Your task to perform on an android device: Go to location settings Image 0: 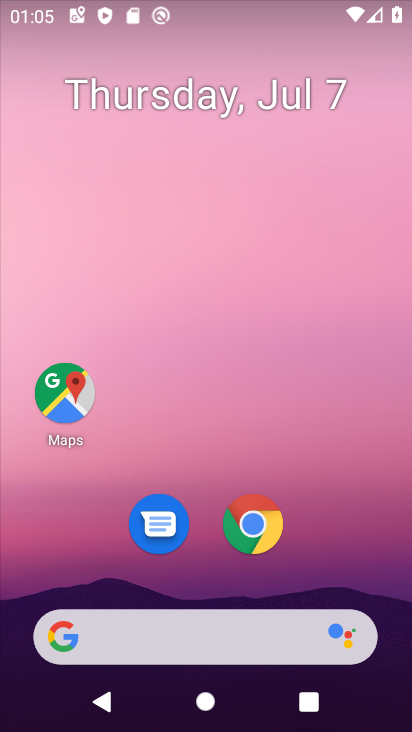
Step 0: drag from (278, 477) to (255, 17)
Your task to perform on an android device: Go to location settings Image 1: 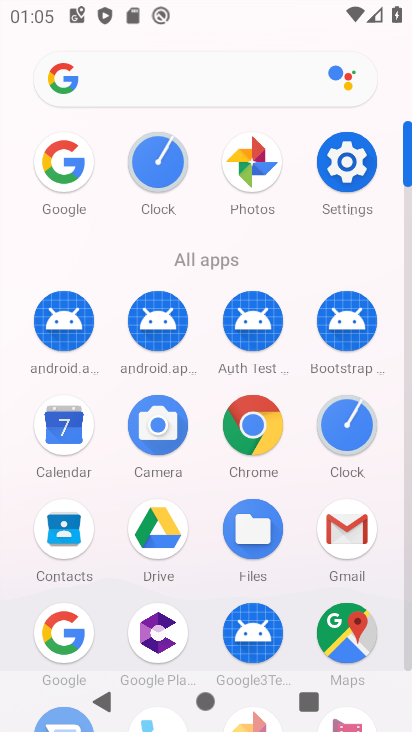
Step 1: click (351, 172)
Your task to perform on an android device: Go to location settings Image 2: 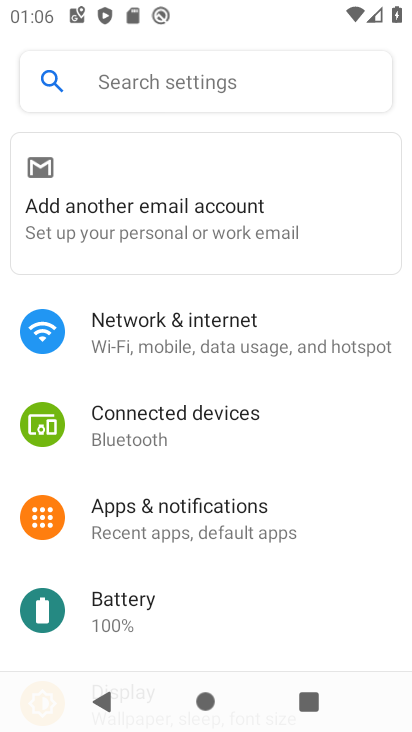
Step 2: drag from (196, 598) to (207, 164)
Your task to perform on an android device: Go to location settings Image 3: 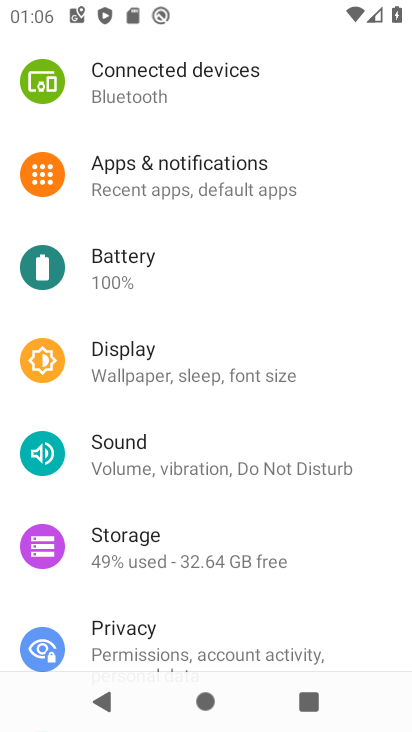
Step 3: drag from (184, 537) to (186, 265)
Your task to perform on an android device: Go to location settings Image 4: 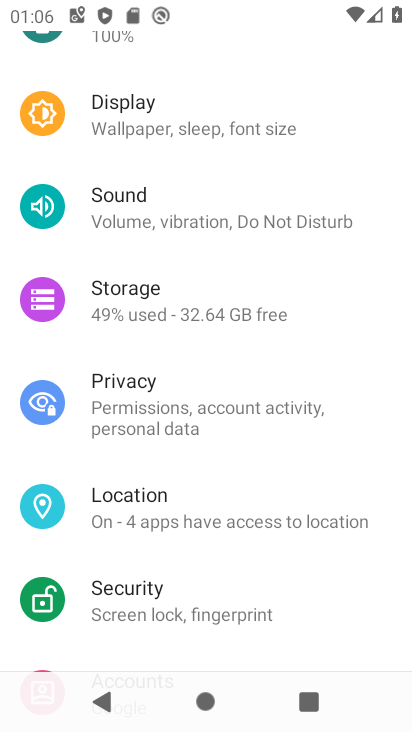
Step 4: click (199, 507)
Your task to perform on an android device: Go to location settings Image 5: 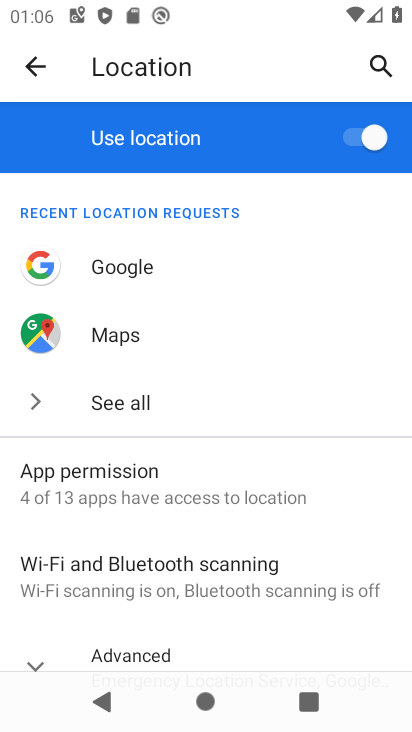
Step 5: task complete